Your task to perform on an android device: change the clock display to show seconds Image 0: 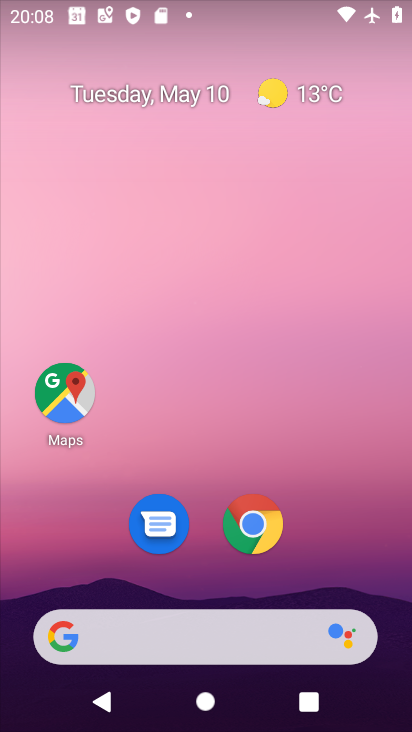
Step 0: drag from (325, 503) to (264, 106)
Your task to perform on an android device: change the clock display to show seconds Image 1: 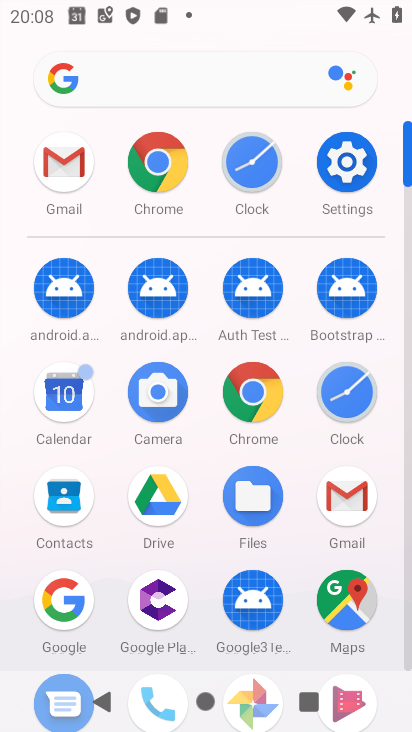
Step 1: click (265, 154)
Your task to perform on an android device: change the clock display to show seconds Image 2: 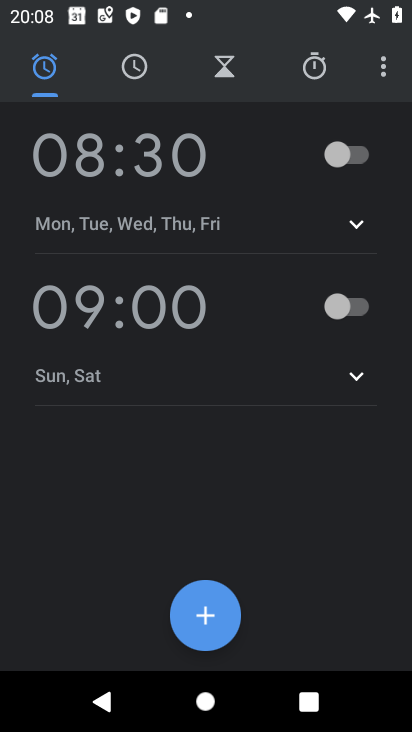
Step 2: click (384, 71)
Your task to perform on an android device: change the clock display to show seconds Image 3: 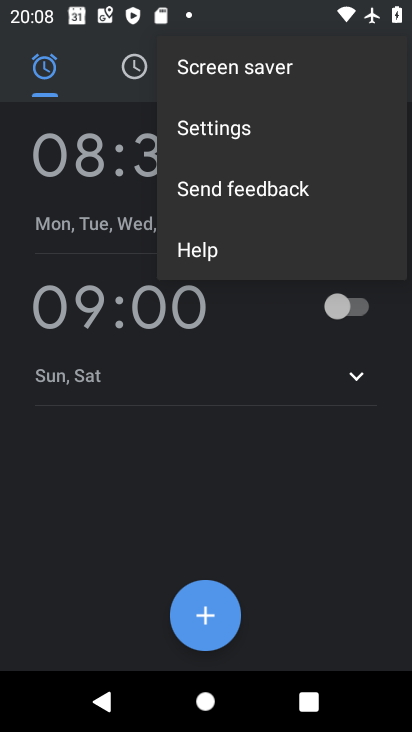
Step 3: click (302, 125)
Your task to perform on an android device: change the clock display to show seconds Image 4: 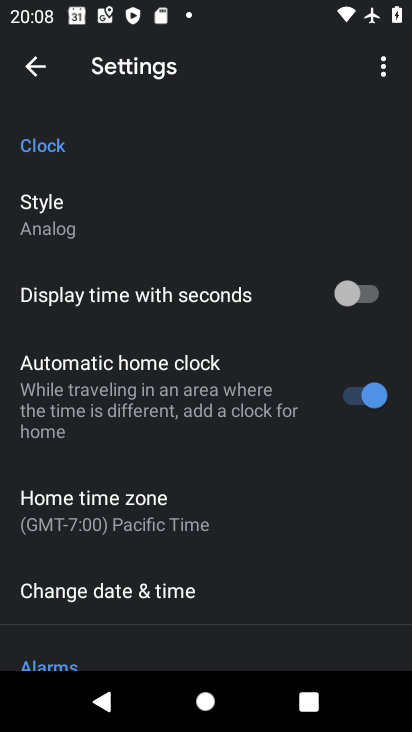
Step 4: click (372, 285)
Your task to perform on an android device: change the clock display to show seconds Image 5: 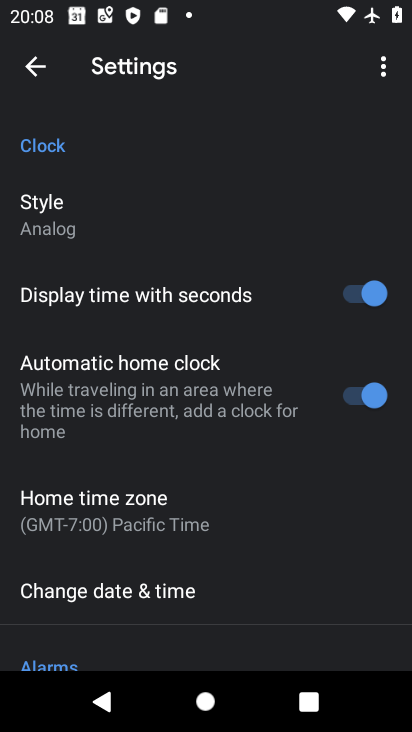
Step 5: task complete